Your task to perform on an android device: Turn off the flashlight Image 0: 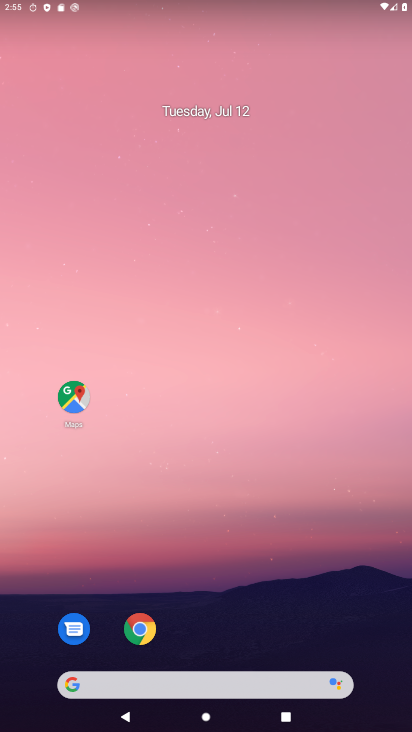
Step 0: drag from (178, 7) to (137, 453)
Your task to perform on an android device: Turn off the flashlight Image 1: 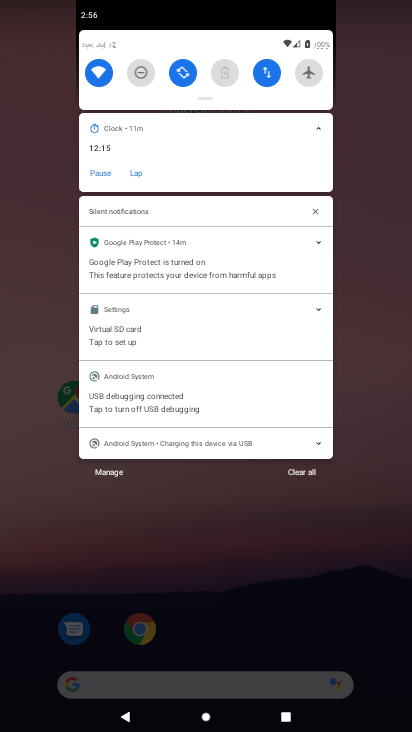
Step 1: task complete